Your task to perform on an android device: toggle sleep mode Image 0: 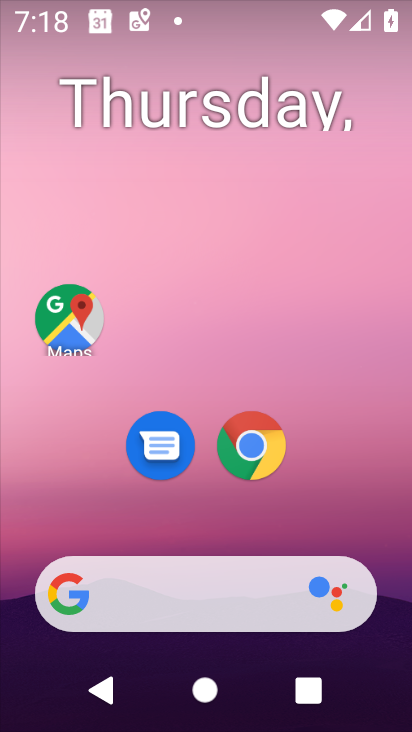
Step 0: click (379, 615)
Your task to perform on an android device: toggle sleep mode Image 1: 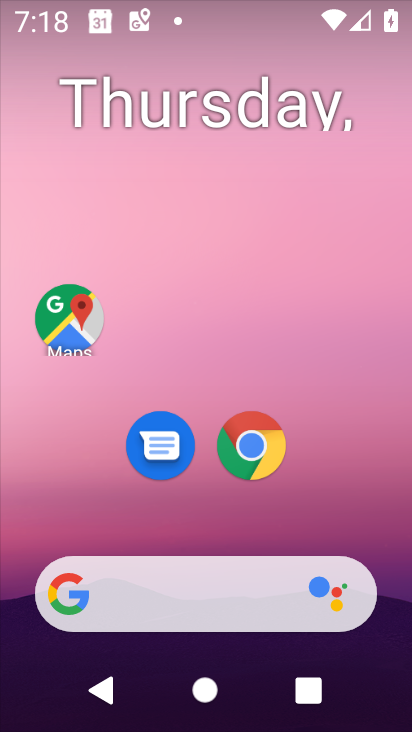
Step 1: drag from (360, 379) to (265, 69)
Your task to perform on an android device: toggle sleep mode Image 2: 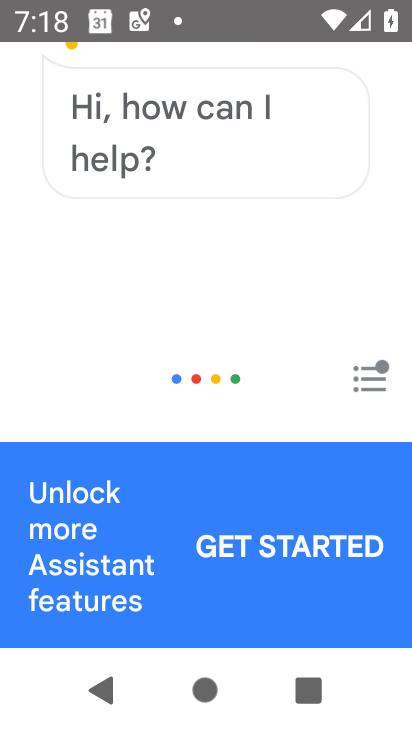
Step 2: click (161, 222)
Your task to perform on an android device: toggle sleep mode Image 3: 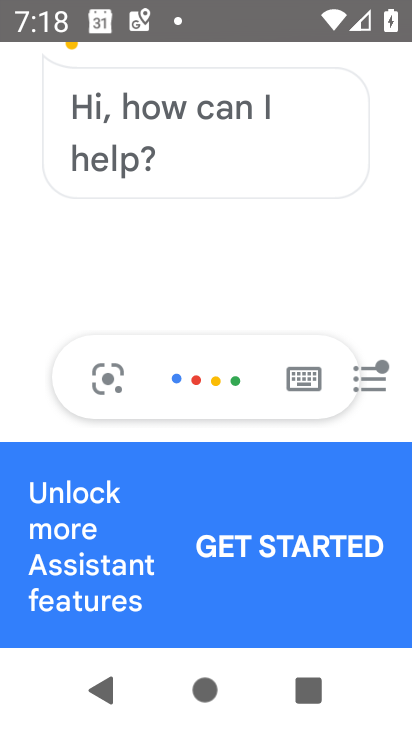
Step 3: press home button
Your task to perform on an android device: toggle sleep mode Image 4: 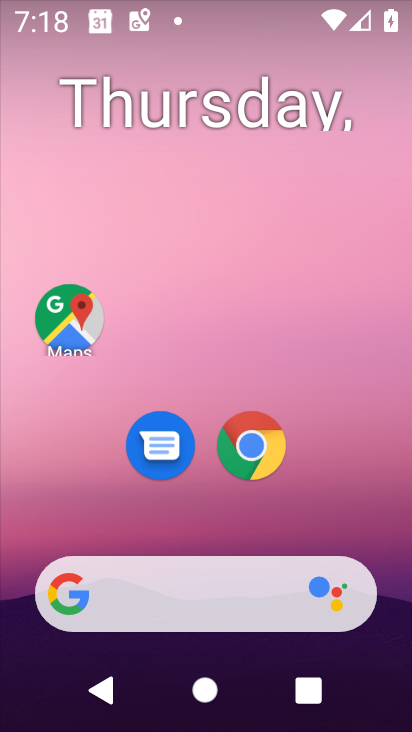
Step 4: drag from (397, 660) to (288, 0)
Your task to perform on an android device: toggle sleep mode Image 5: 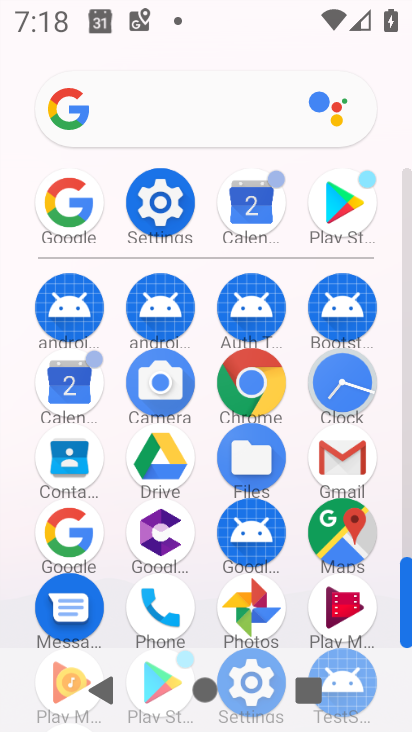
Step 5: click (152, 171)
Your task to perform on an android device: toggle sleep mode Image 6: 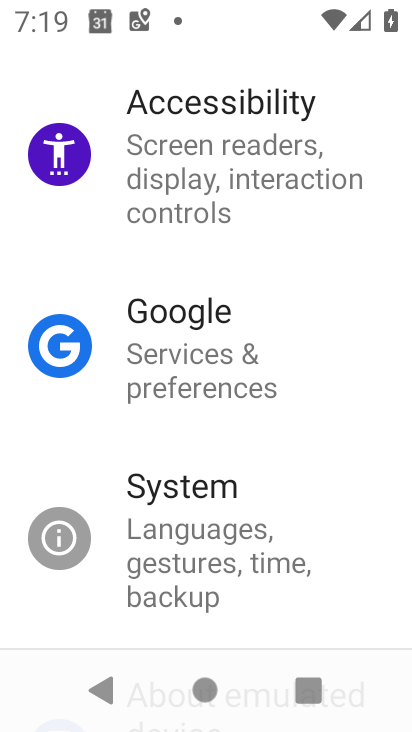
Step 6: task complete